Your task to perform on an android device: turn off notifications settings in the gmail app Image 0: 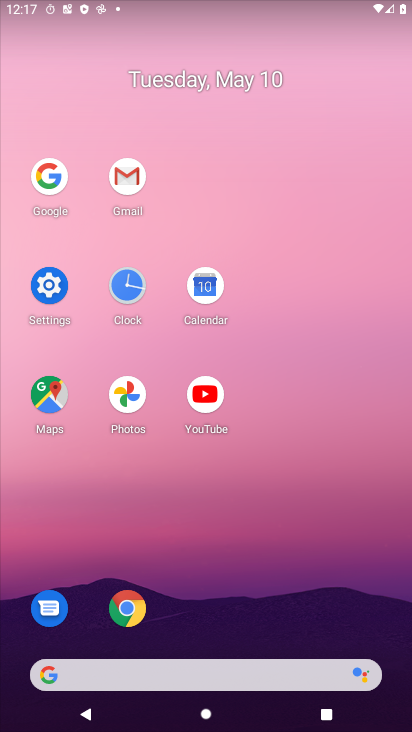
Step 0: click (140, 172)
Your task to perform on an android device: turn off notifications settings in the gmail app Image 1: 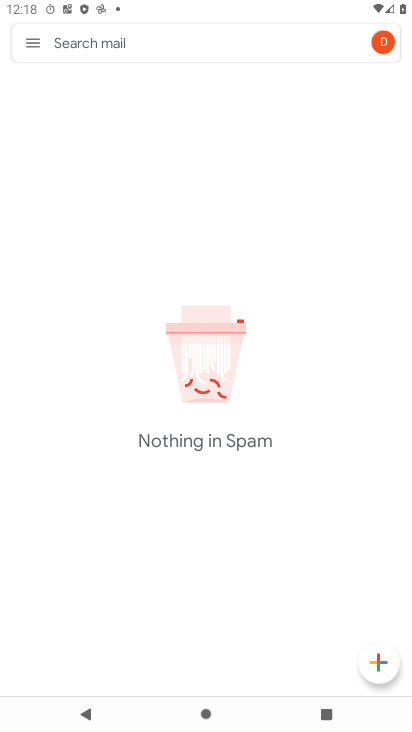
Step 1: click (35, 41)
Your task to perform on an android device: turn off notifications settings in the gmail app Image 2: 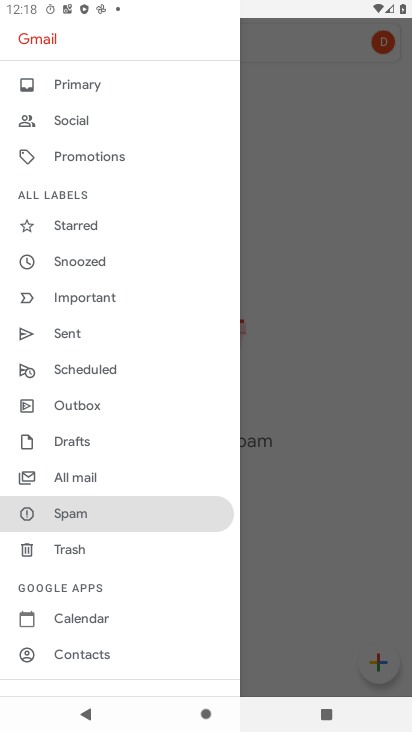
Step 2: drag from (140, 258) to (161, 500)
Your task to perform on an android device: turn off notifications settings in the gmail app Image 3: 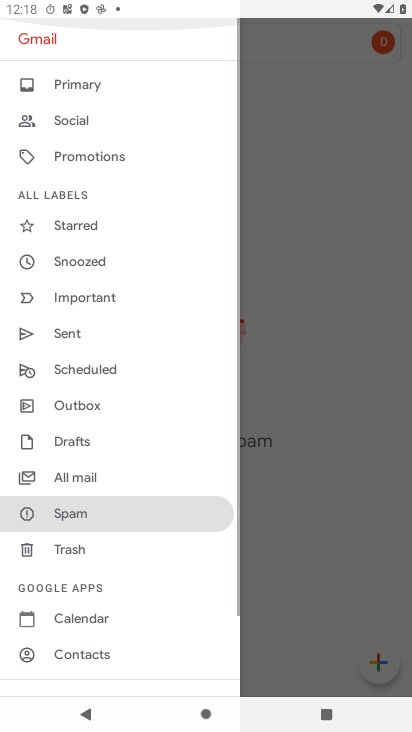
Step 3: drag from (151, 482) to (168, 156)
Your task to perform on an android device: turn off notifications settings in the gmail app Image 4: 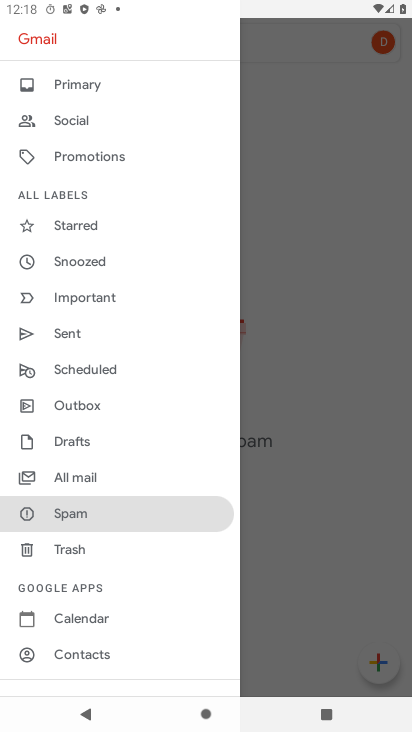
Step 4: drag from (95, 595) to (166, 248)
Your task to perform on an android device: turn off notifications settings in the gmail app Image 5: 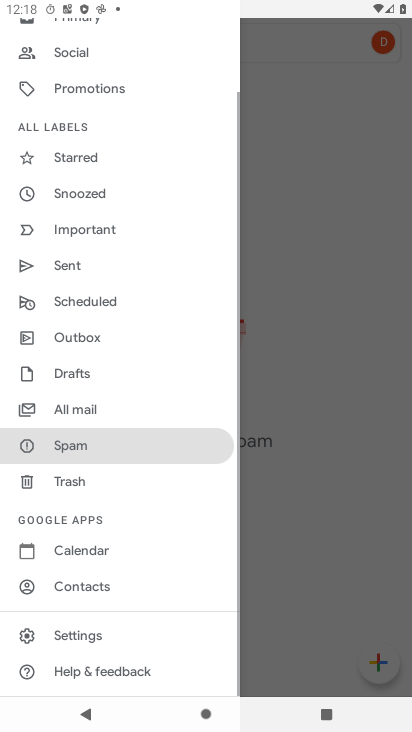
Step 5: click (98, 635)
Your task to perform on an android device: turn off notifications settings in the gmail app Image 6: 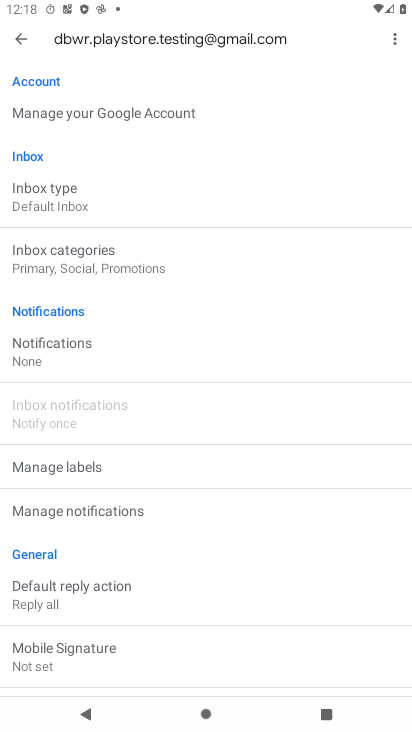
Step 6: click (108, 345)
Your task to perform on an android device: turn off notifications settings in the gmail app Image 7: 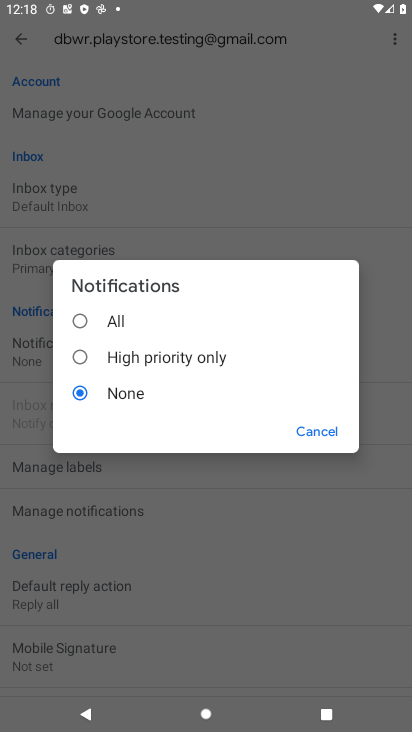
Step 7: task complete